Your task to perform on an android device: Open accessibility settings Image 0: 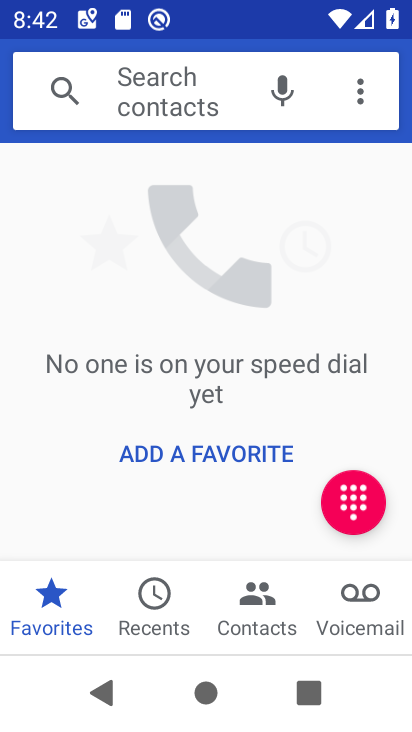
Step 0: press home button
Your task to perform on an android device: Open accessibility settings Image 1: 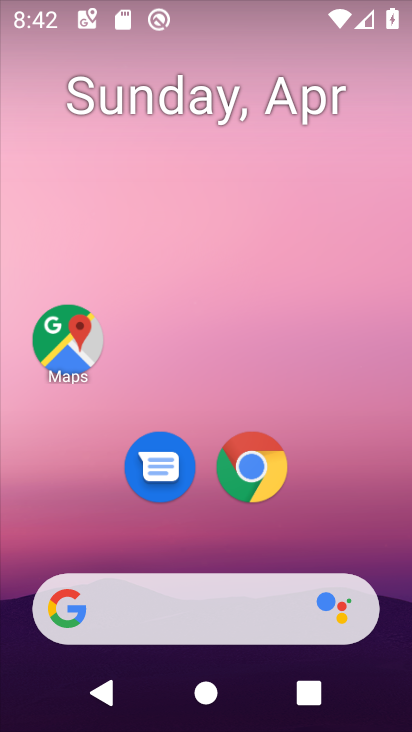
Step 1: drag from (300, 529) to (349, 19)
Your task to perform on an android device: Open accessibility settings Image 2: 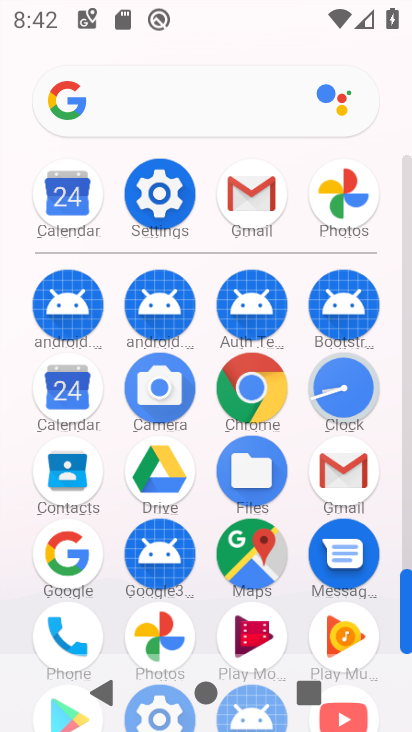
Step 2: click (175, 184)
Your task to perform on an android device: Open accessibility settings Image 3: 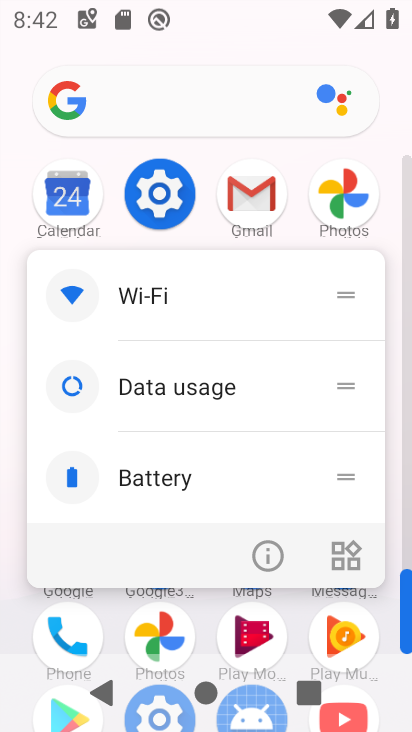
Step 3: click (152, 176)
Your task to perform on an android device: Open accessibility settings Image 4: 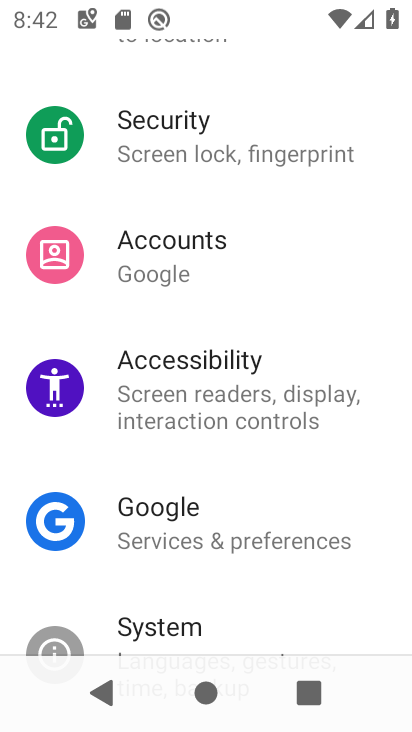
Step 4: click (174, 404)
Your task to perform on an android device: Open accessibility settings Image 5: 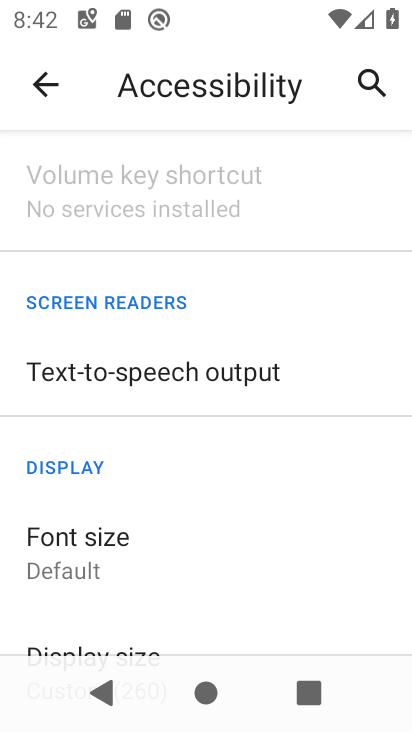
Step 5: task complete